Your task to perform on an android device: turn notification dots off Image 0: 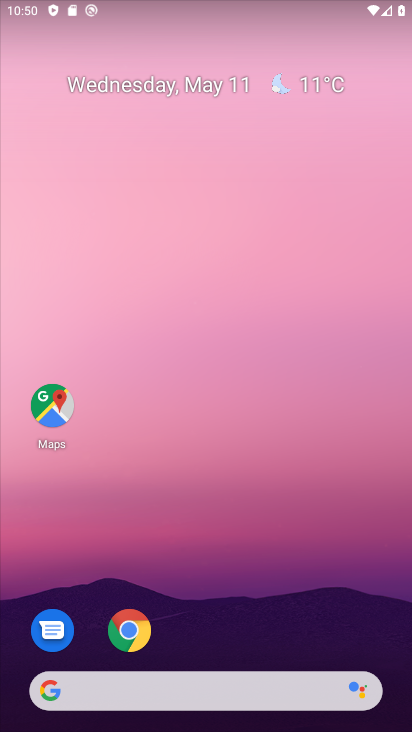
Step 0: drag from (191, 634) to (252, 264)
Your task to perform on an android device: turn notification dots off Image 1: 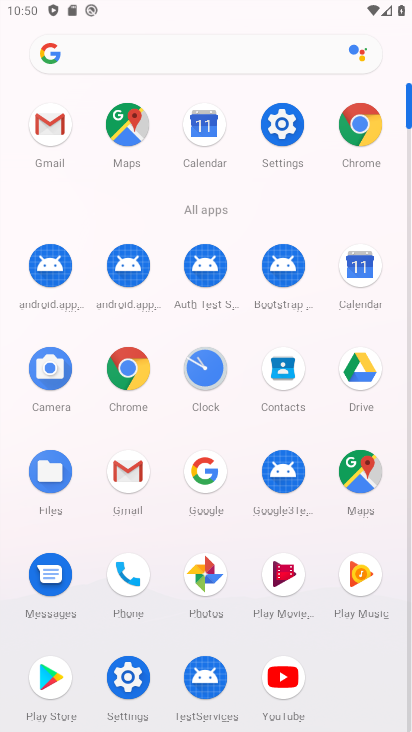
Step 1: click (122, 685)
Your task to perform on an android device: turn notification dots off Image 2: 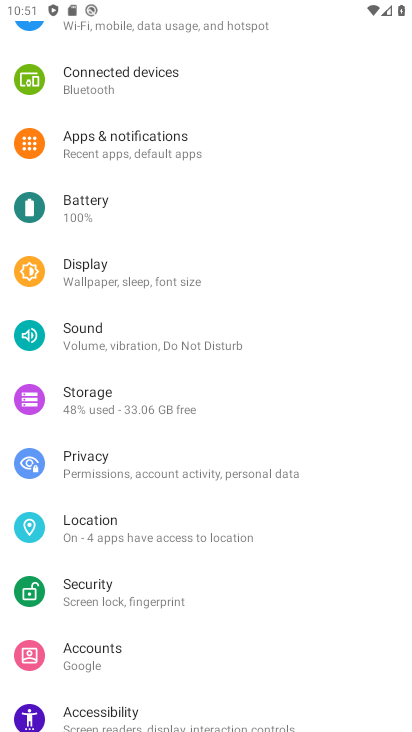
Step 2: click (151, 146)
Your task to perform on an android device: turn notification dots off Image 3: 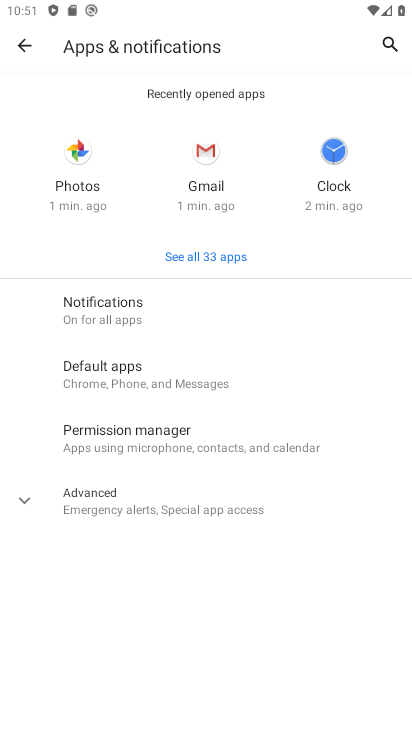
Step 3: click (83, 309)
Your task to perform on an android device: turn notification dots off Image 4: 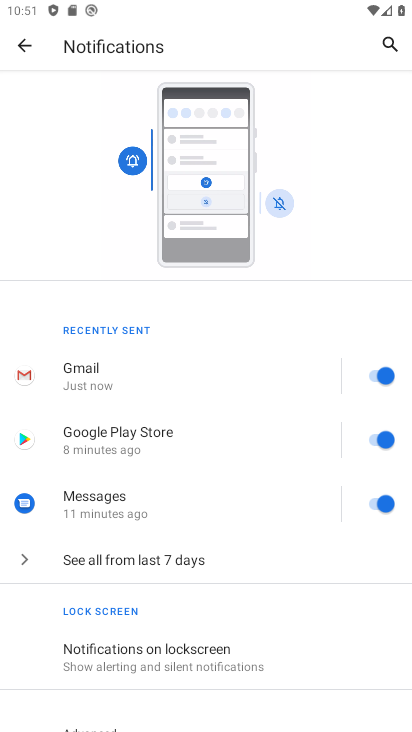
Step 4: drag from (184, 608) to (224, 250)
Your task to perform on an android device: turn notification dots off Image 5: 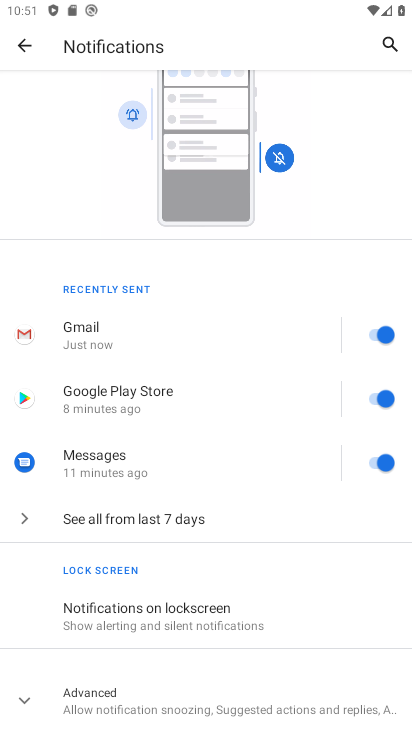
Step 5: click (23, 696)
Your task to perform on an android device: turn notification dots off Image 6: 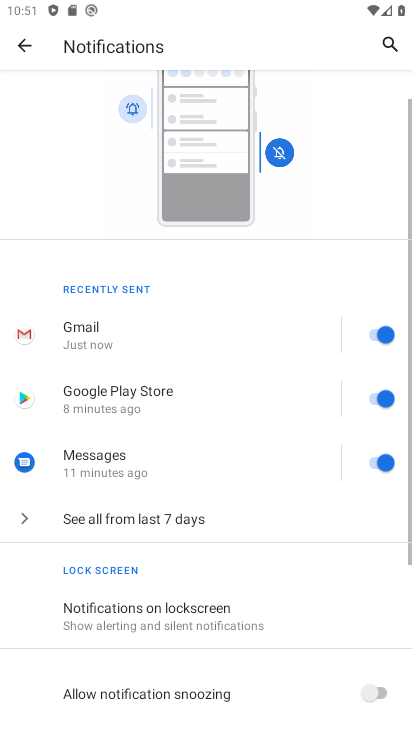
Step 6: task complete